Your task to perform on an android device: turn on airplane mode Image 0: 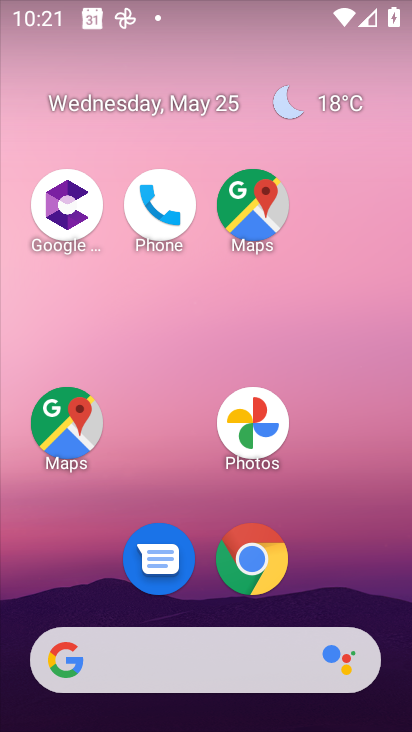
Step 0: drag from (329, 566) to (297, 35)
Your task to perform on an android device: turn on airplane mode Image 1: 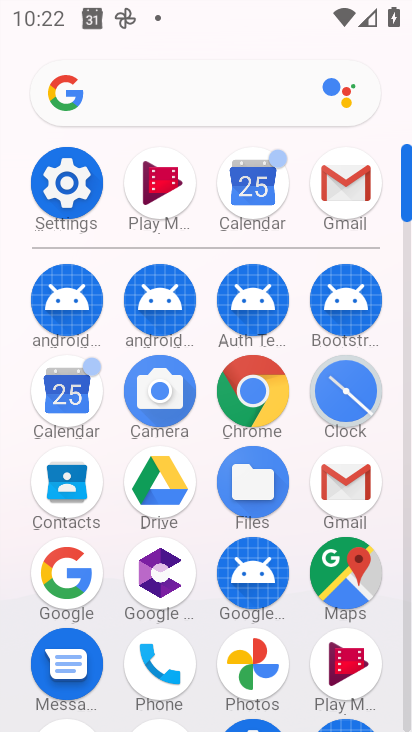
Step 1: click (68, 183)
Your task to perform on an android device: turn on airplane mode Image 2: 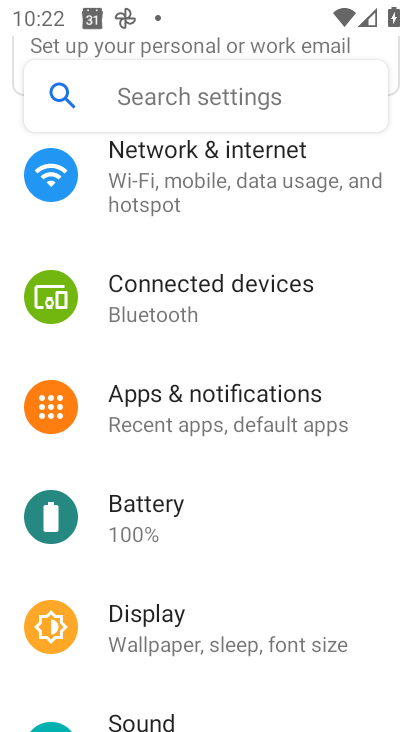
Step 2: click (263, 174)
Your task to perform on an android device: turn on airplane mode Image 3: 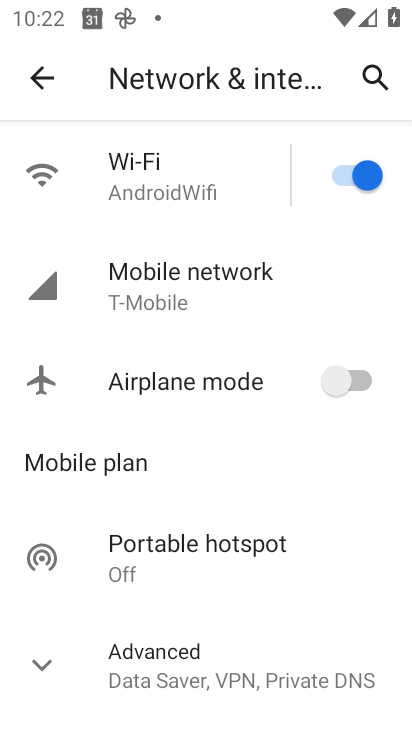
Step 3: click (365, 383)
Your task to perform on an android device: turn on airplane mode Image 4: 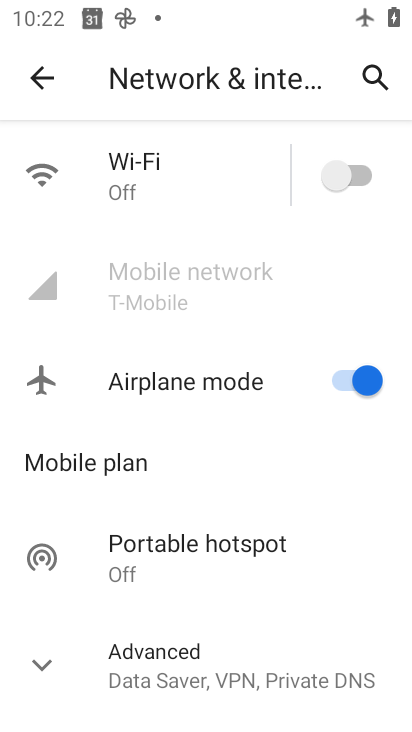
Step 4: task complete